Your task to perform on an android device: remove spam from my inbox in the gmail app Image 0: 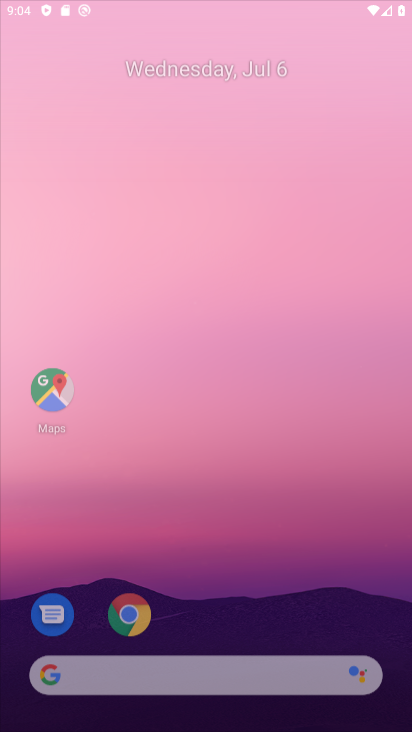
Step 0: click (175, 193)
Your task to perform on an android device: remove spam from my inbox in the gmail app Image 1: 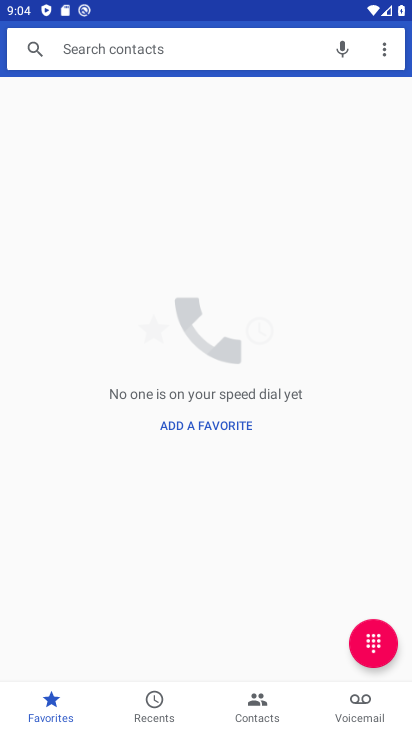
Step 1: press home button
Your task to perform on an android device: remove spam from my inbox in the gmail app Image 2: 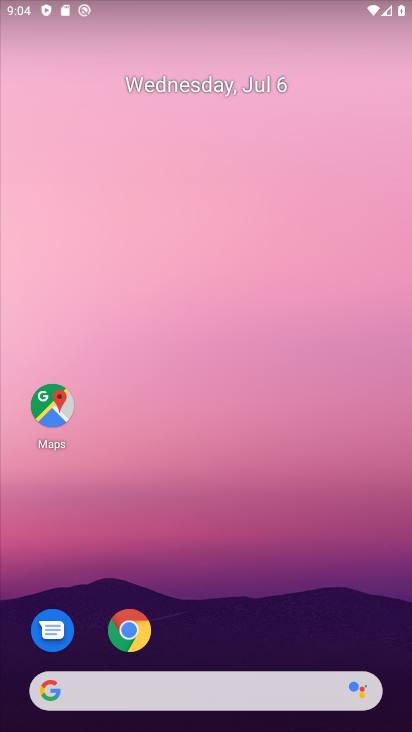
Step 2: drag from (133, 675) to (186, 277)
Your task to perform on an android device: remove spam from my inbox in the gmail app Image 3: 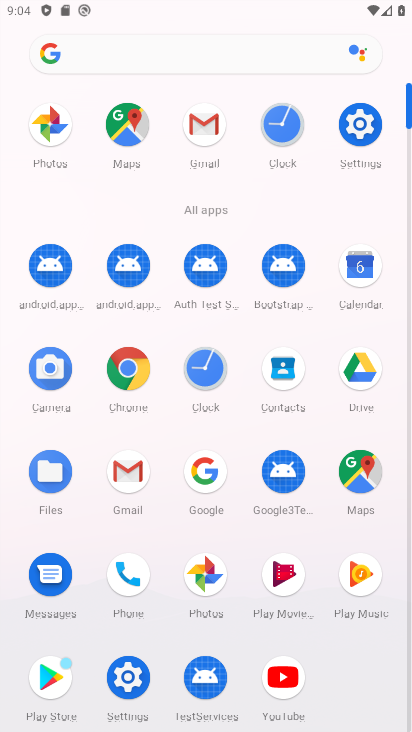
Step 3: click (209, 131)
Your task to perform on an android device: remove spam from my inbox in the gmail app Image 4: 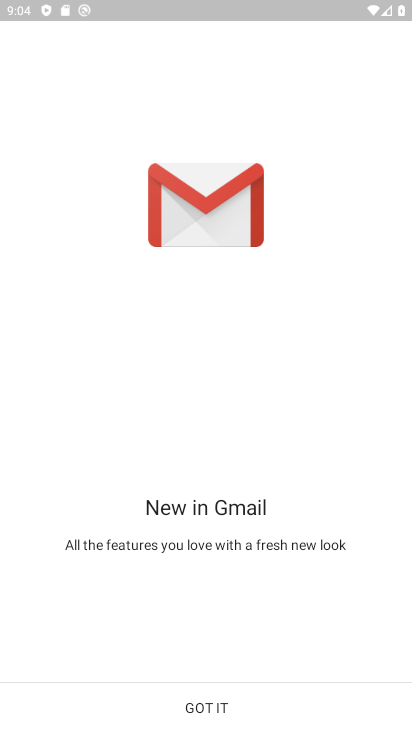
Step 4: click (212, 705)
Your task to perform on an android device: remove spam from my inbox in the gmail app Image 5: 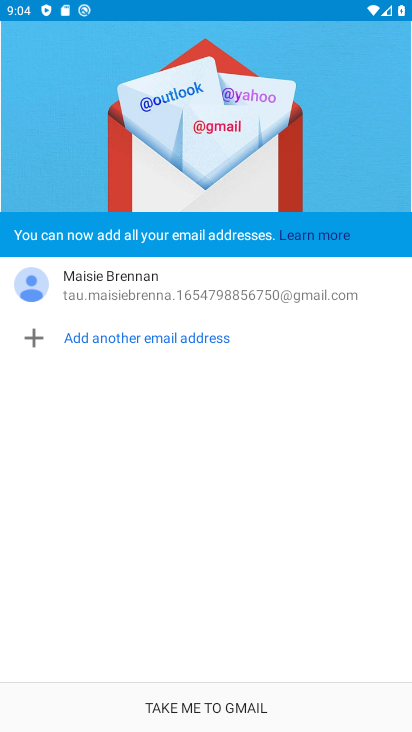
Step 5: click (211, 705)
Your task to perform on an android device: remove spam from my inbox in the gmail app Image 6: 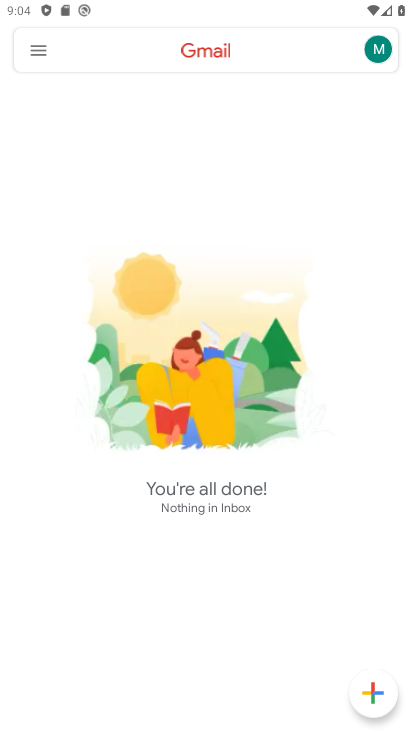
Step 6: click (34, 48)
Your task to perform on an android device: remove spam from my inbox in the gmail app Image 7: 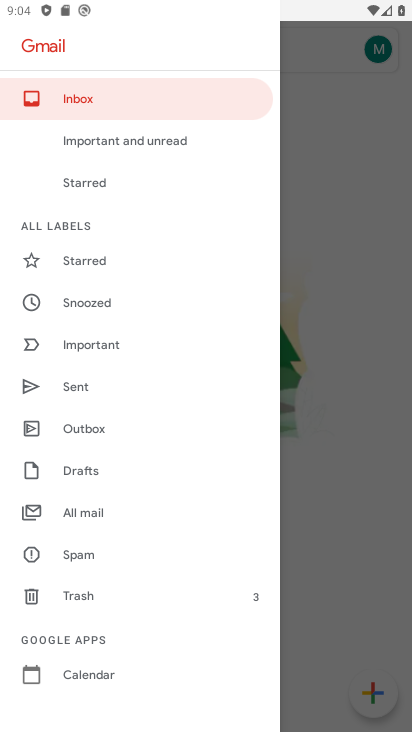
Step 7: click (82, 563)
Your task to perform on an android device: remove spam from my inbox in the gmail app Image 8: 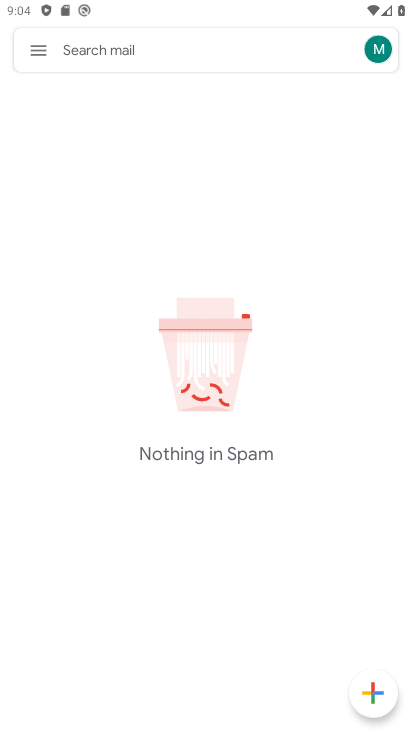
Step 8: task complete